Your task to perform on an android device: Go to Yahoo.com Image 0: 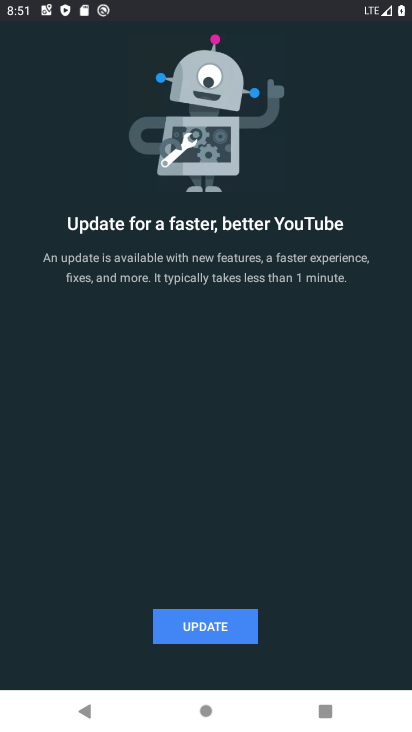
Step 0: press home button
Your task to perform on an android device: Go to Yahoo.com Image 1: 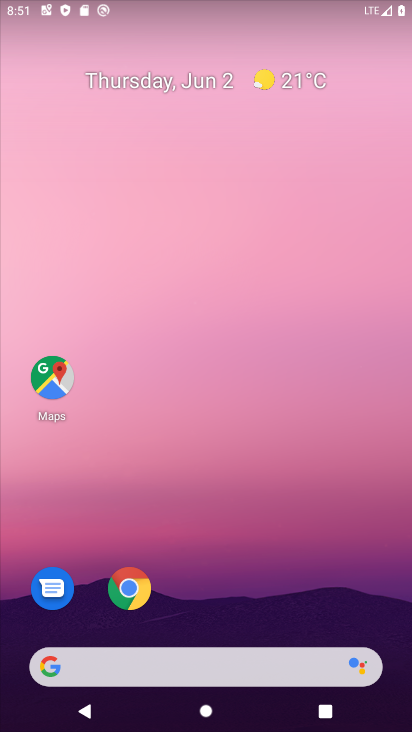
Step 1: click (127, 593)
Your task to perform on an android device: Go to Yahoo.com Image 2: 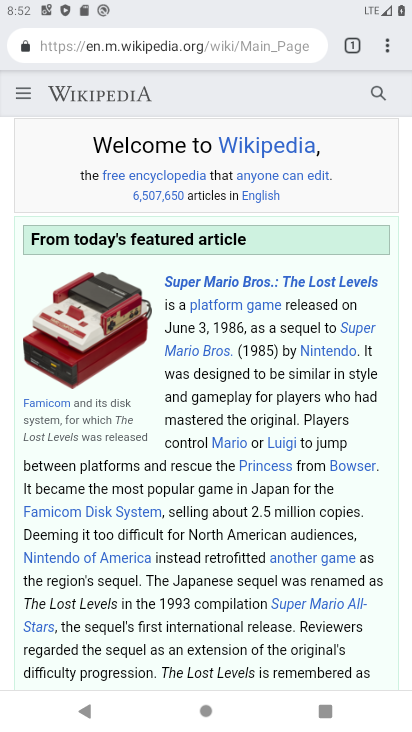
Step 2: click (217, 43)
Your task to perform on an android device: Go to Yahoo.com Image 3: 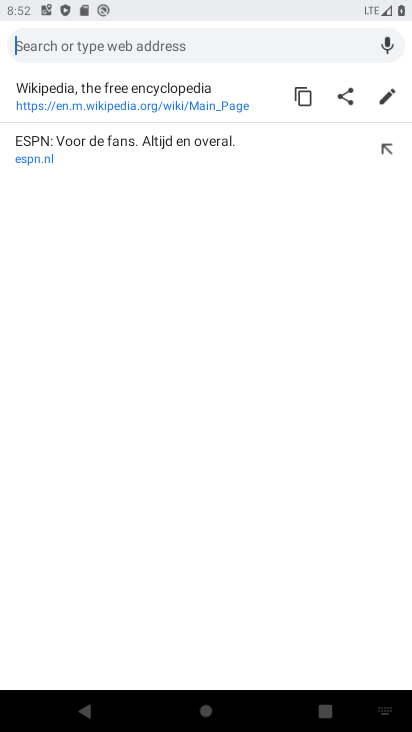
Step 3: type "yahoo"
Your task to perform on an android device: Go to Yahoo.com Image 4: 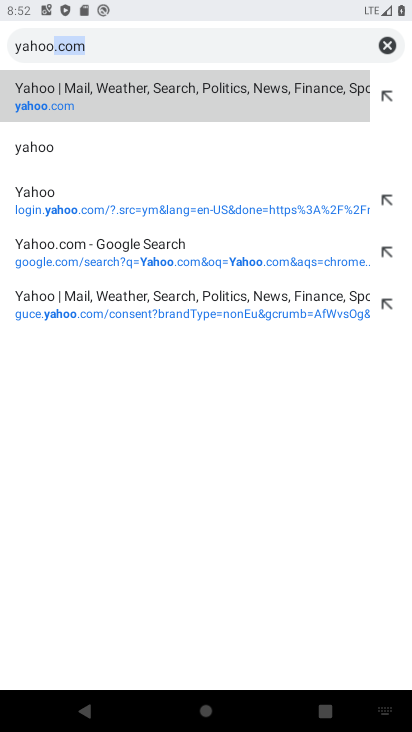
Step 4: click (201, 94)
Your task to perform on an android device: Go to Yahoo.com Image 5: 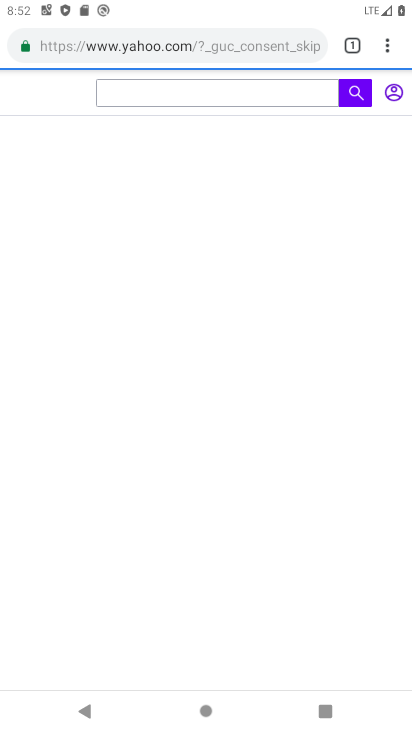
Step 5: task complete